Your task to perform on an android device: Go to eBay Image 0: 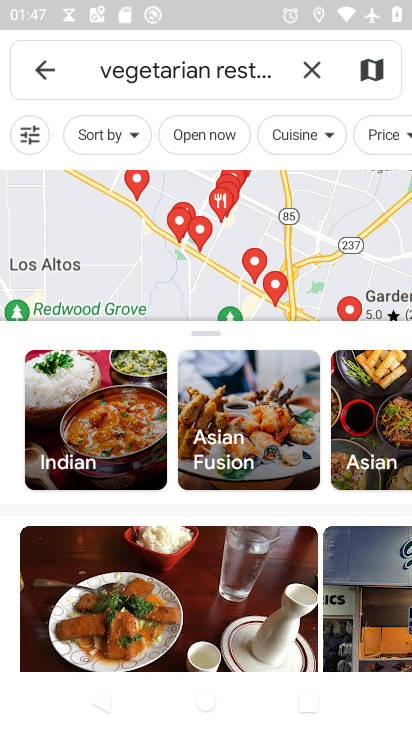
Step 0: press home button
Your task to perform on an android device: Go to eBay Image 1: 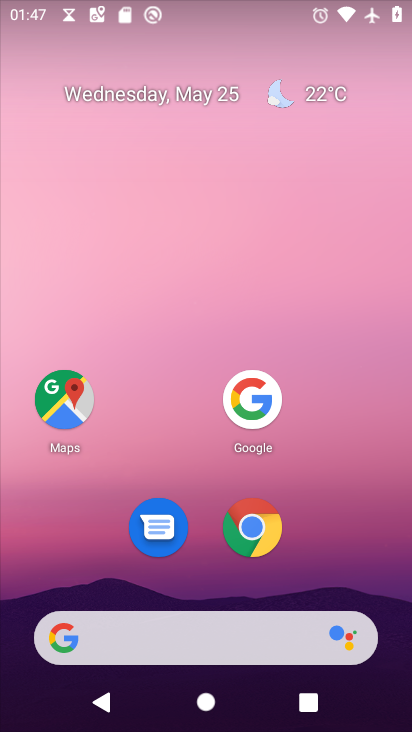
Step 1: click (251, 521)
Your task to perform on an android device: Go to eBay Image 2: 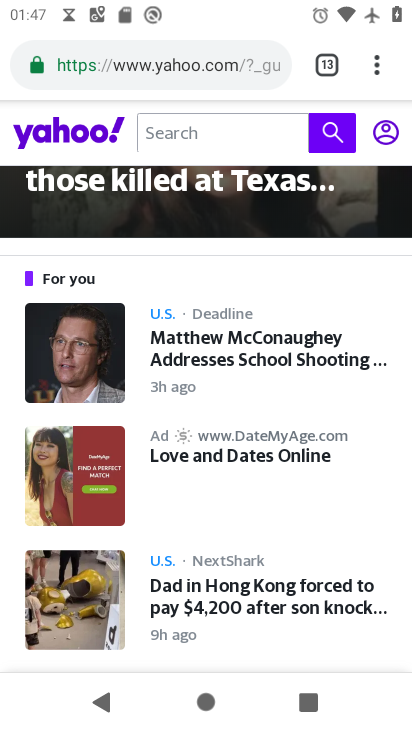
Step 2: drag from (375, 70) to (227, 133)
Your task to perform on an android device: Go to eBay Image 3: 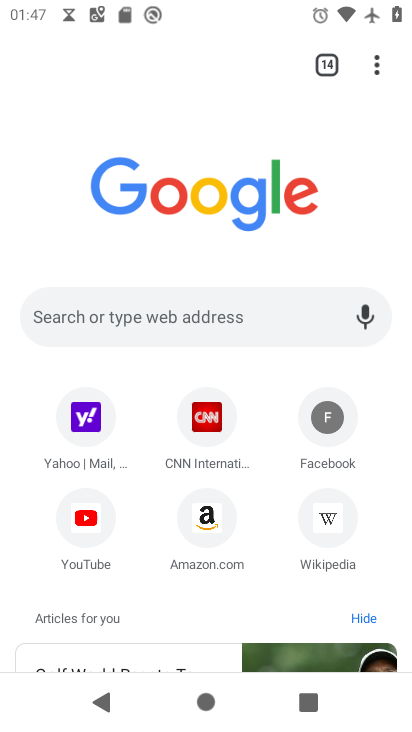
Step 3: click (85, 325)
Your task to perform on an android device: Go to eBay Image 4: 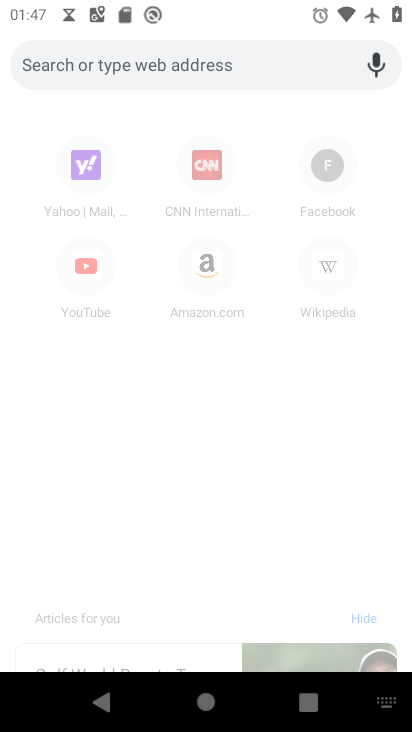
Step 4: type "ebay"
Your task to perform on an android device: Go to eBay Image 5: 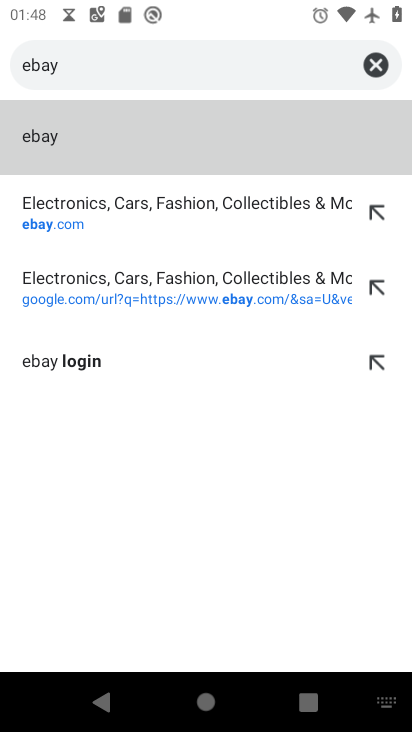
Step 5: click (164, 143)
Your task to perform on an android device: Go to eBay Image 6: 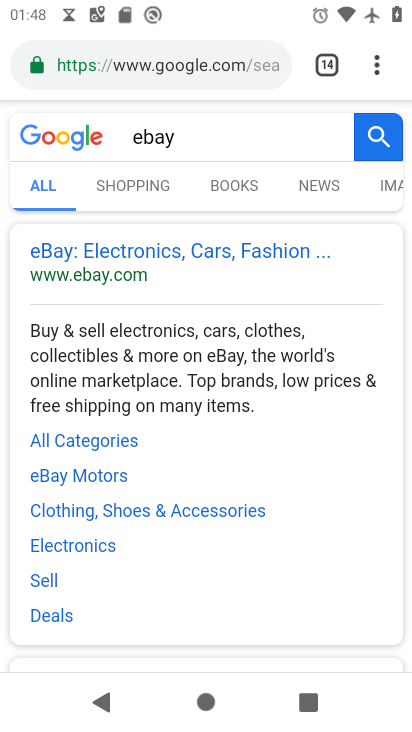
Step 6: click (184, 260)
Your task to perform on an android device: Go to eBay Image 7: 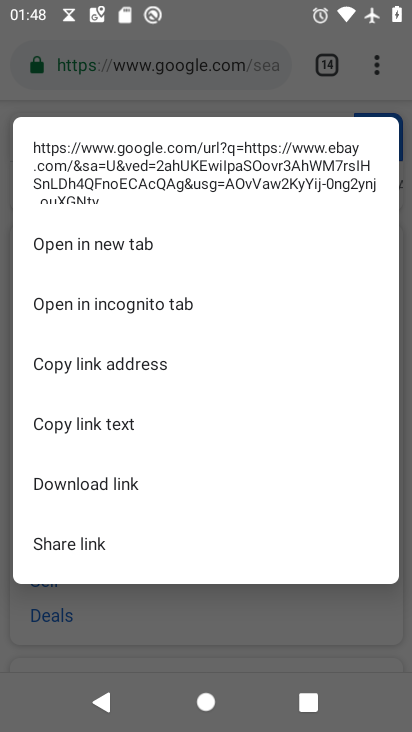
Step 7: press back button
Your task to perform on an android device: Go to eBay Image 8: 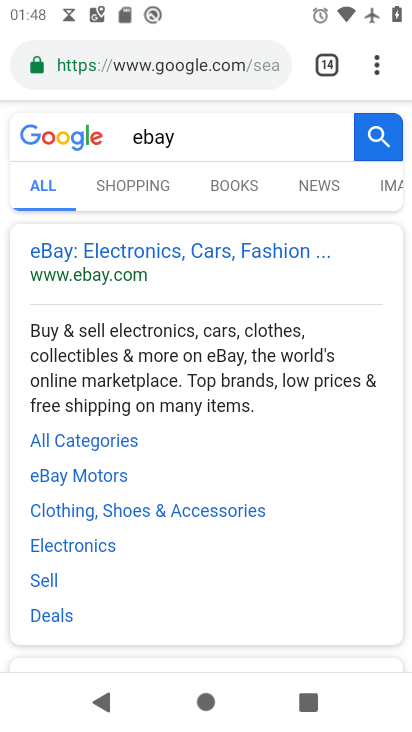
Step 8: click (181, 250)
Your task to perform on an android device: Go to eBay Image 9: 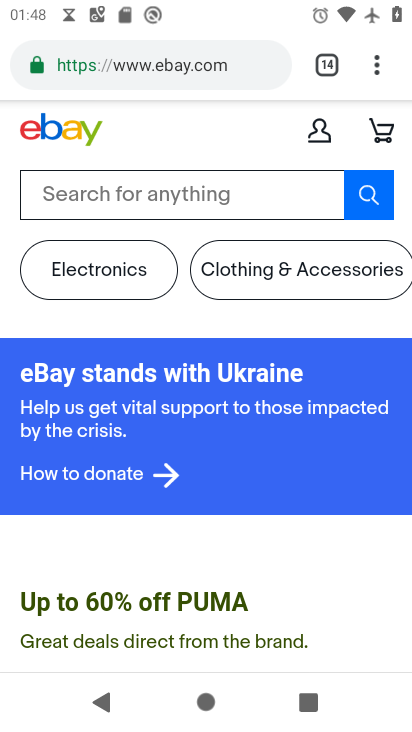
Step 9: task complete